Your task to perform on an android device: What is the capital of Japan? Image 0: 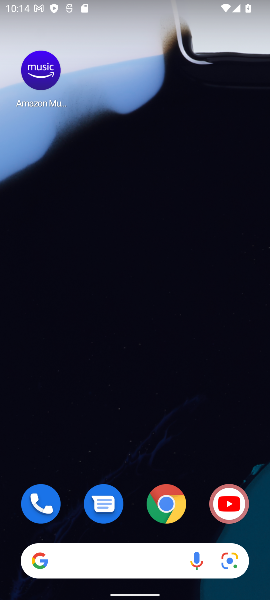
Step 0: click (167, 504)
Your task to perform on an android device: What is the capital of Japan? Image 1: 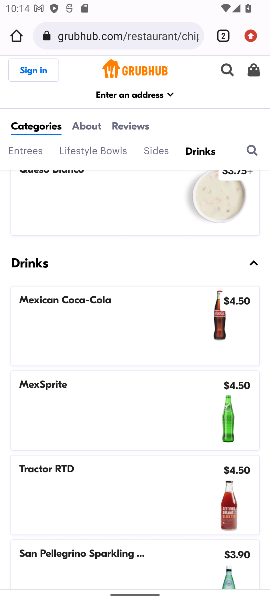
Step 1: click (129, 23)
Your task to perform on an android device: What is the capital of Japan? Image 2: 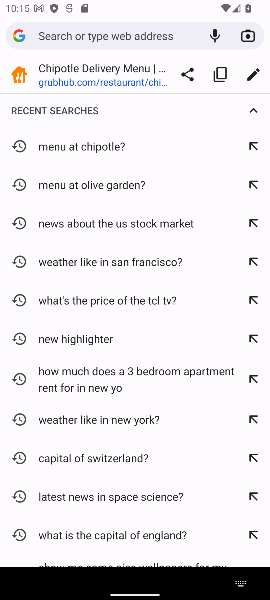
Step 2: type "capital of Japan?"
Your task to perform on an android device: What is the capital of Japan? Image 3: 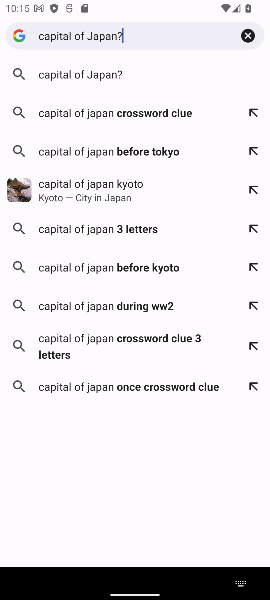
Step 3: click (74, 72)
Your task to perform on an android device: What is the capital of Japan? Image 4: 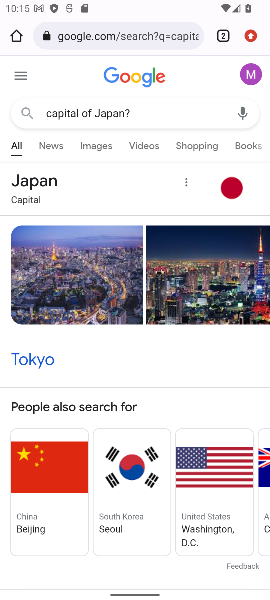
Step 4: task complete